Your task to perform on an android device: Go to Google Image 0: 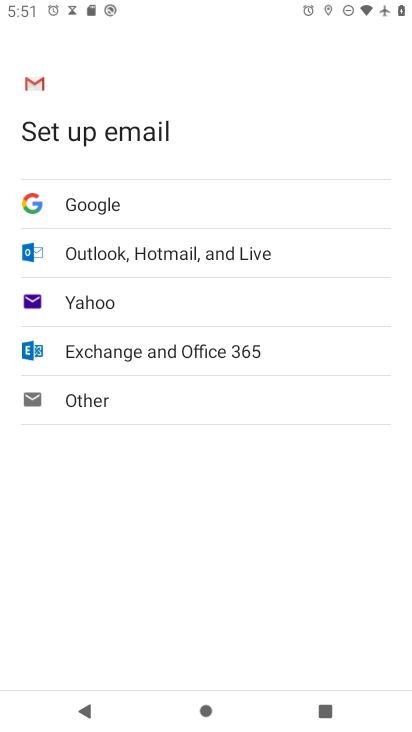
Step 0: press back button
Your task to perform on an android device: Go to Google Image 1: 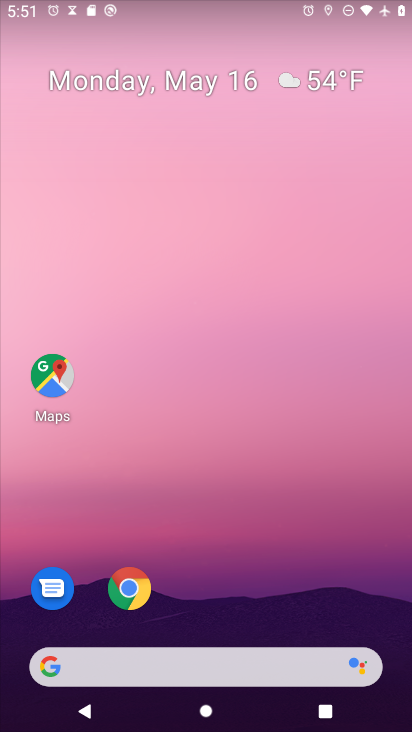
Step 1: drag from (336, 468) to (289, 84)
Your task to perform on an android device: Go to Google Image 2: 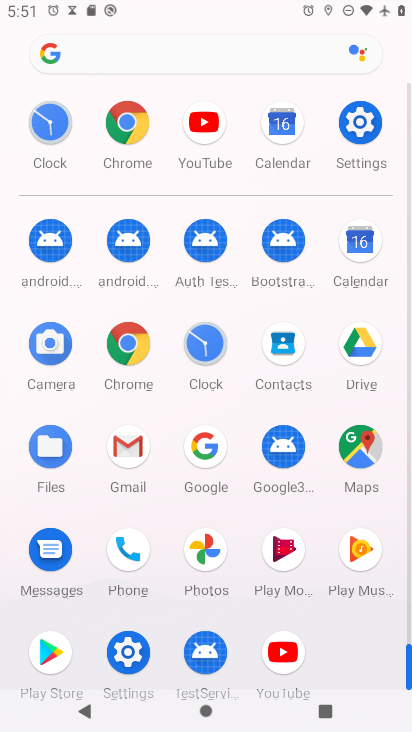
Step 2: click (127, 120)
Your task to perform on an android device: Go to Google Image 3: 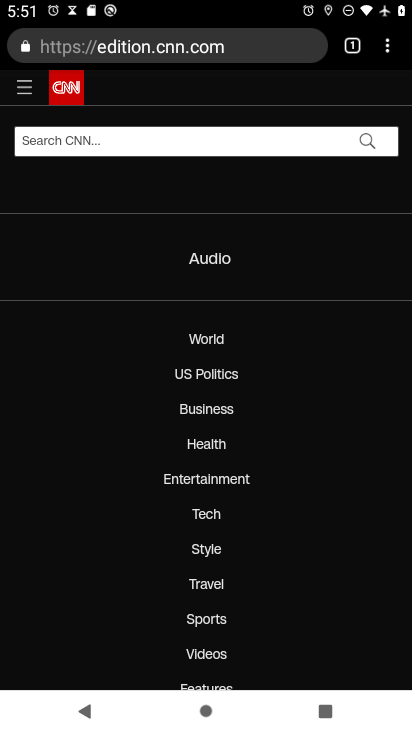
Step 3: click (173, 48)
Your task to perform on an android device: Go to Google Image 4: 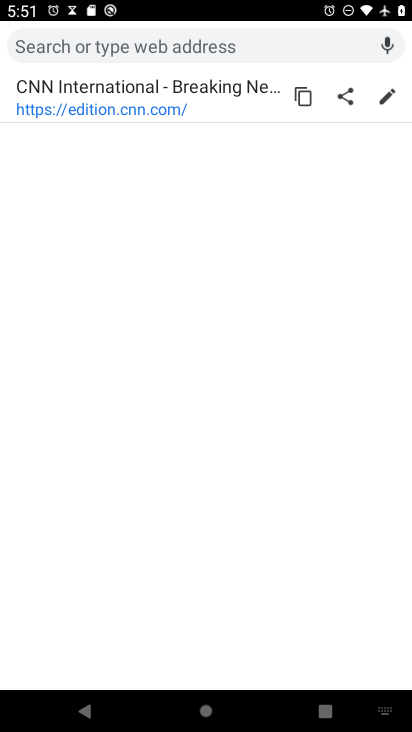
Step 4: type "Google"
Your task to perform on an android device: Go to Google Image 5: 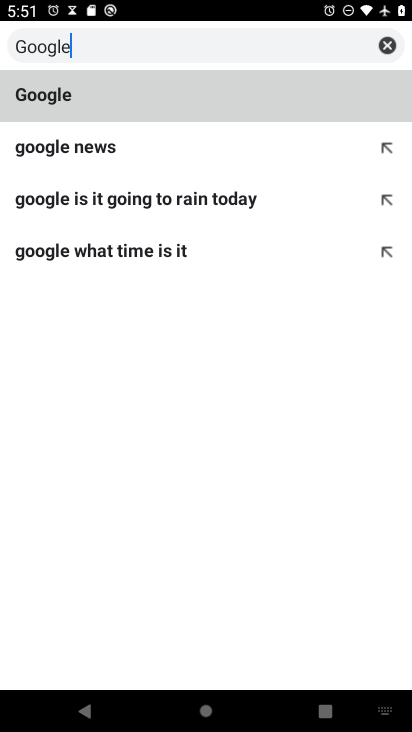
Step 5: type ""
Your task to perform on an android device: Go to Google Image 6: 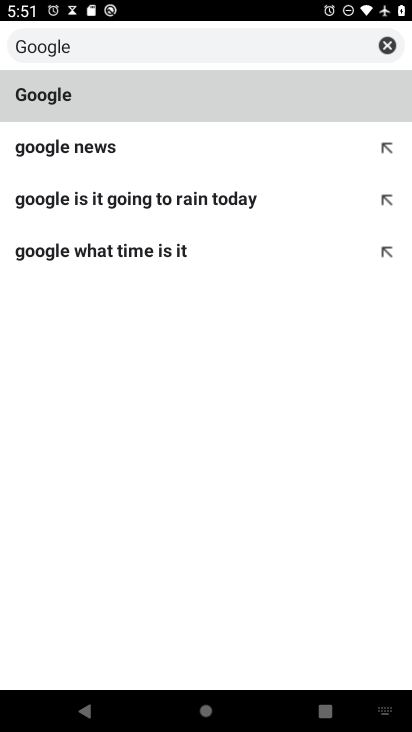
Step 6: click (88, 99)
Your task to perform on an android device: Go to Google Image 7: 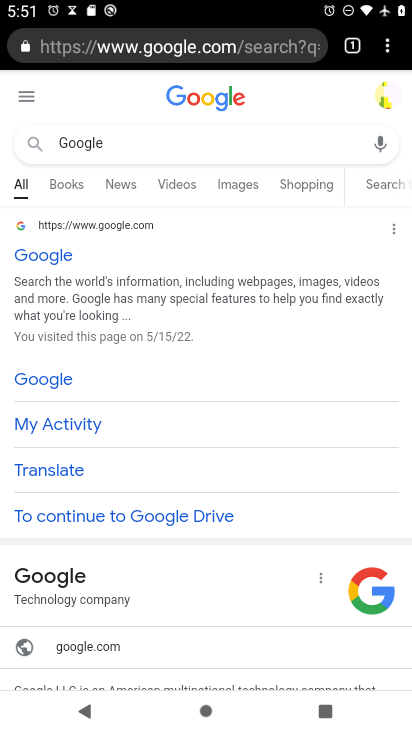
Step 7: click (39, 250)
Your task to perform on an android device: Go to Google Image 8: 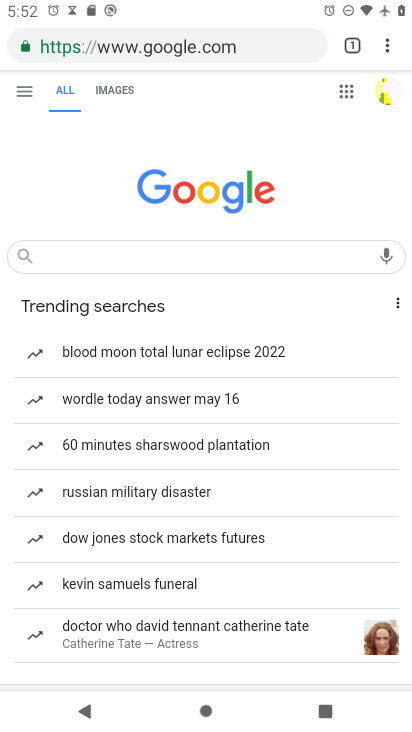
Step 8: task complete